Your task to perform on an android device: find snoozed emails in the gmail app Image 0: 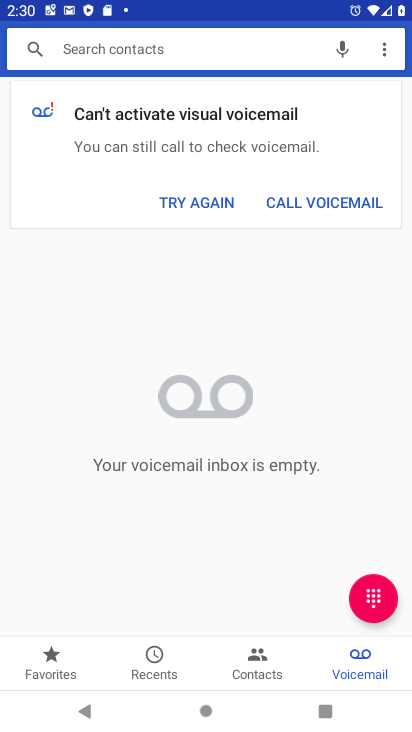
Step 0: press home button
Your task to perform on an android device: find snoozed emails in the gmail app Image 1: 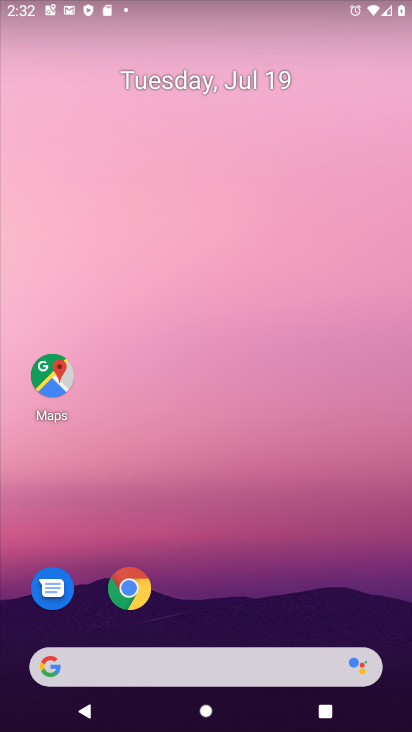
Step 1: drag from (308, 597) to (119, 104)
Your task to perform on an android device: find snoozed emails in the gmail app Image 2: 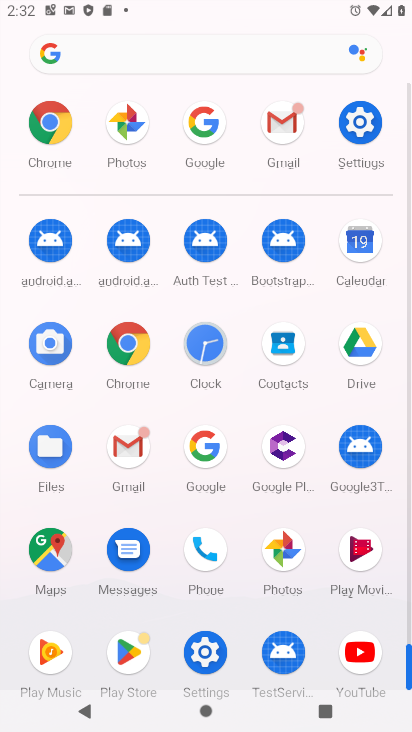
Step 2: click (133, 432)
Your task to perform on an android device: find snoozed emails in the gmail app Image 3: 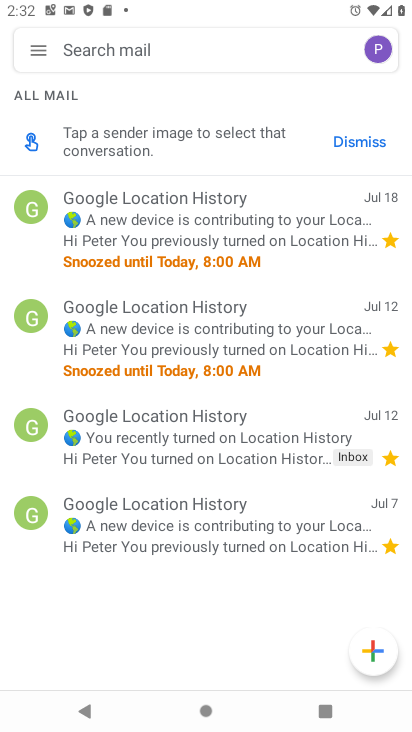
Step 3: click (40, 49)
Your task to perform on an android device: find snoozed emails in the gmail app Image 4: 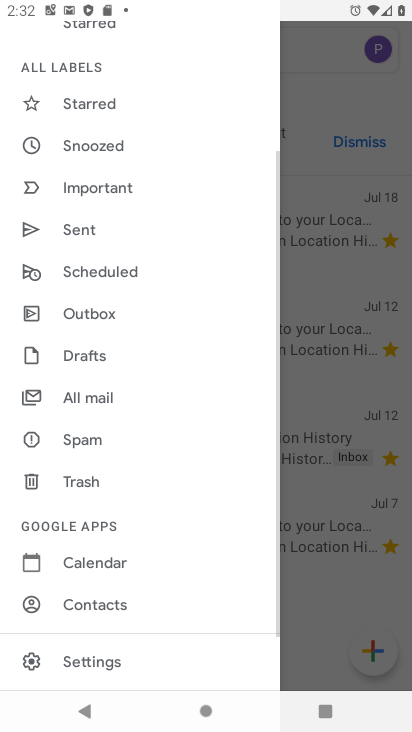
Step 4: click (72, 146)
Your task to perform on an android device: find snoozed emails in the gmail app Image 5: 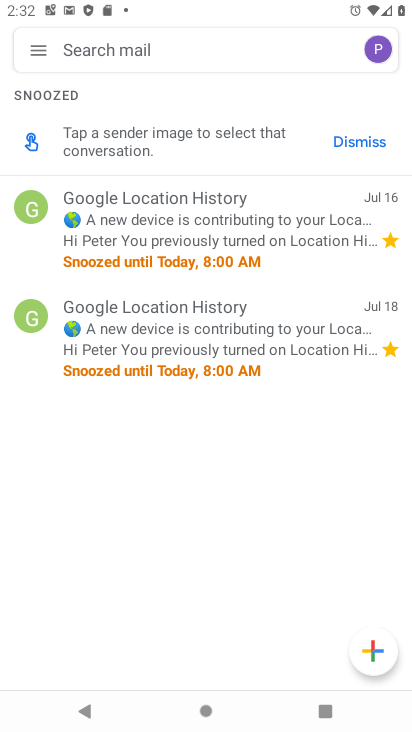
Step 5: task complete